Your task to perform on an android device: Search for a 100 ft extension cord Image 0: 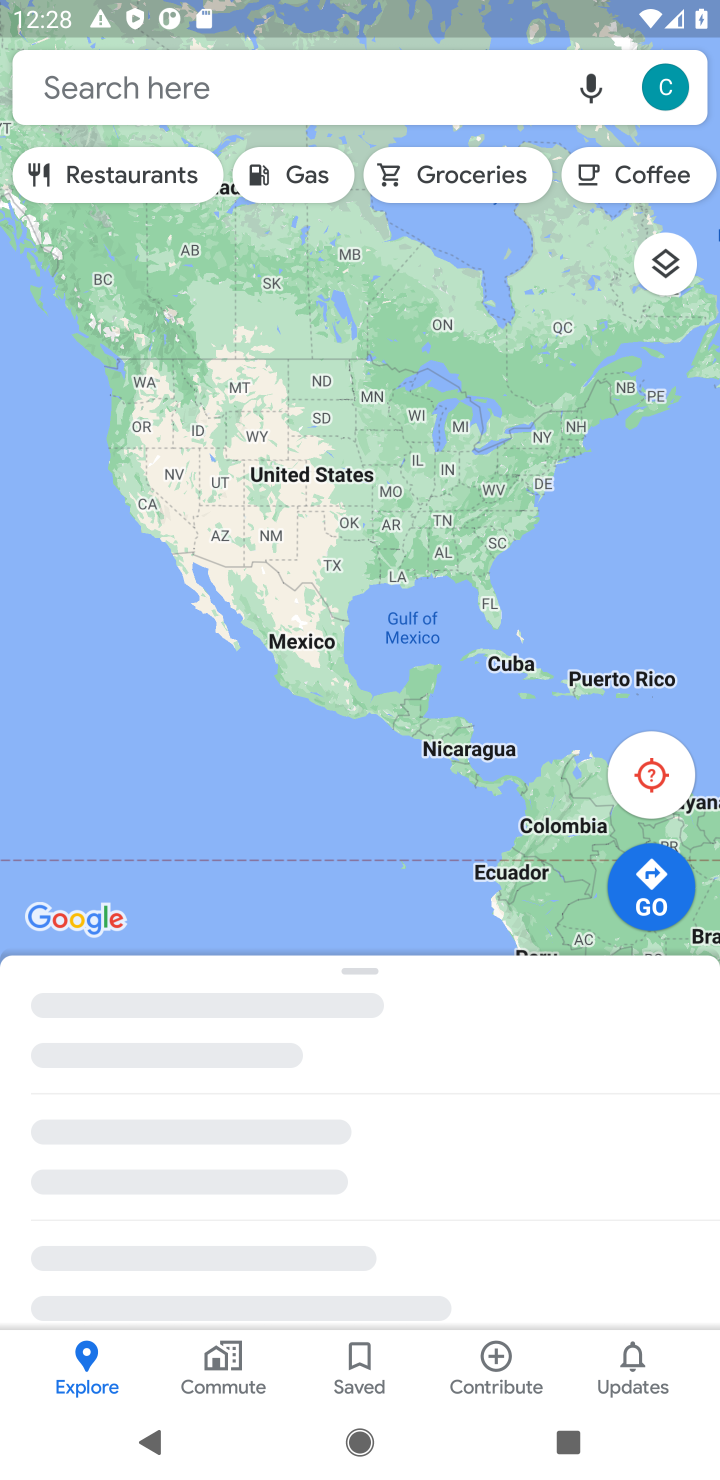
Step 0: press home button
Your task to perform on an android device: Search for a 100 ft extension cord Image 1: 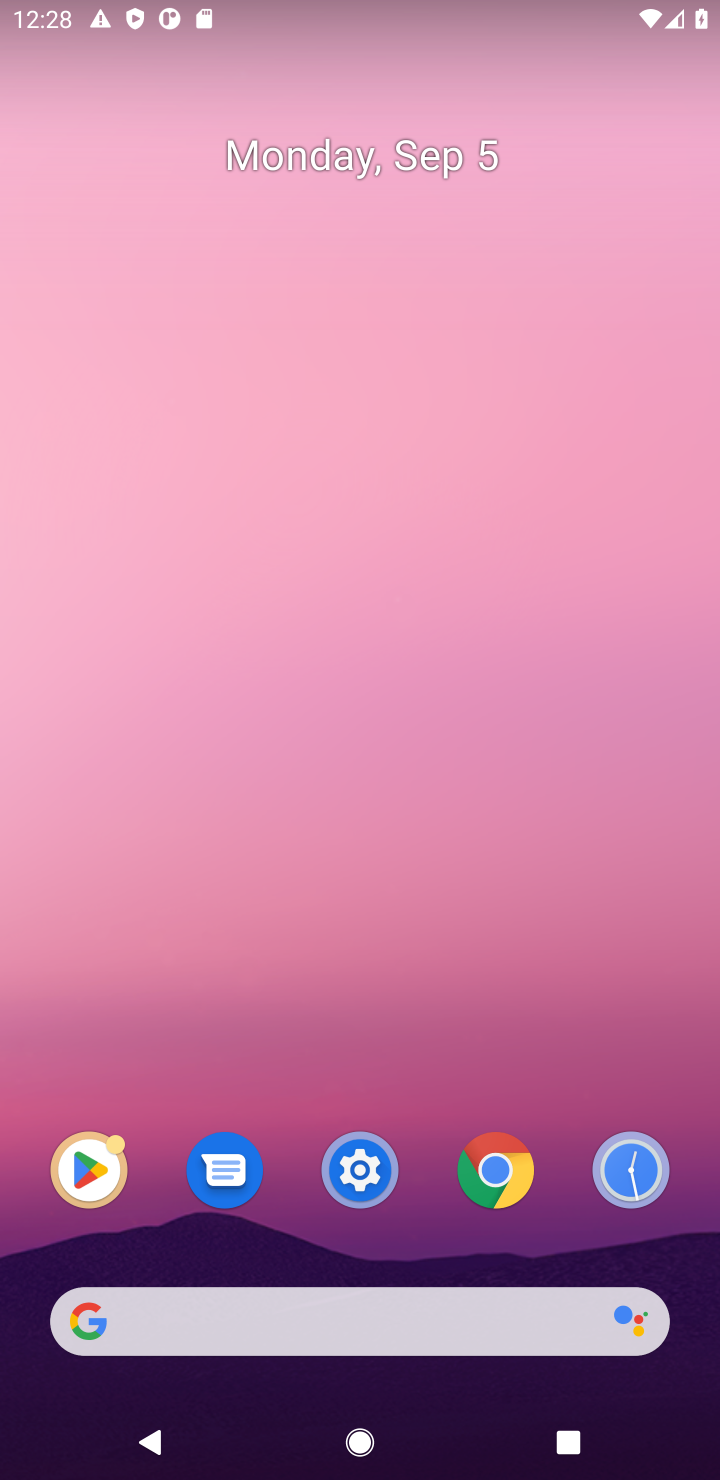
Step 1: click (352, 1331)
Your task to perform on an android device: Search for a 100 ft extension cord Image 2: 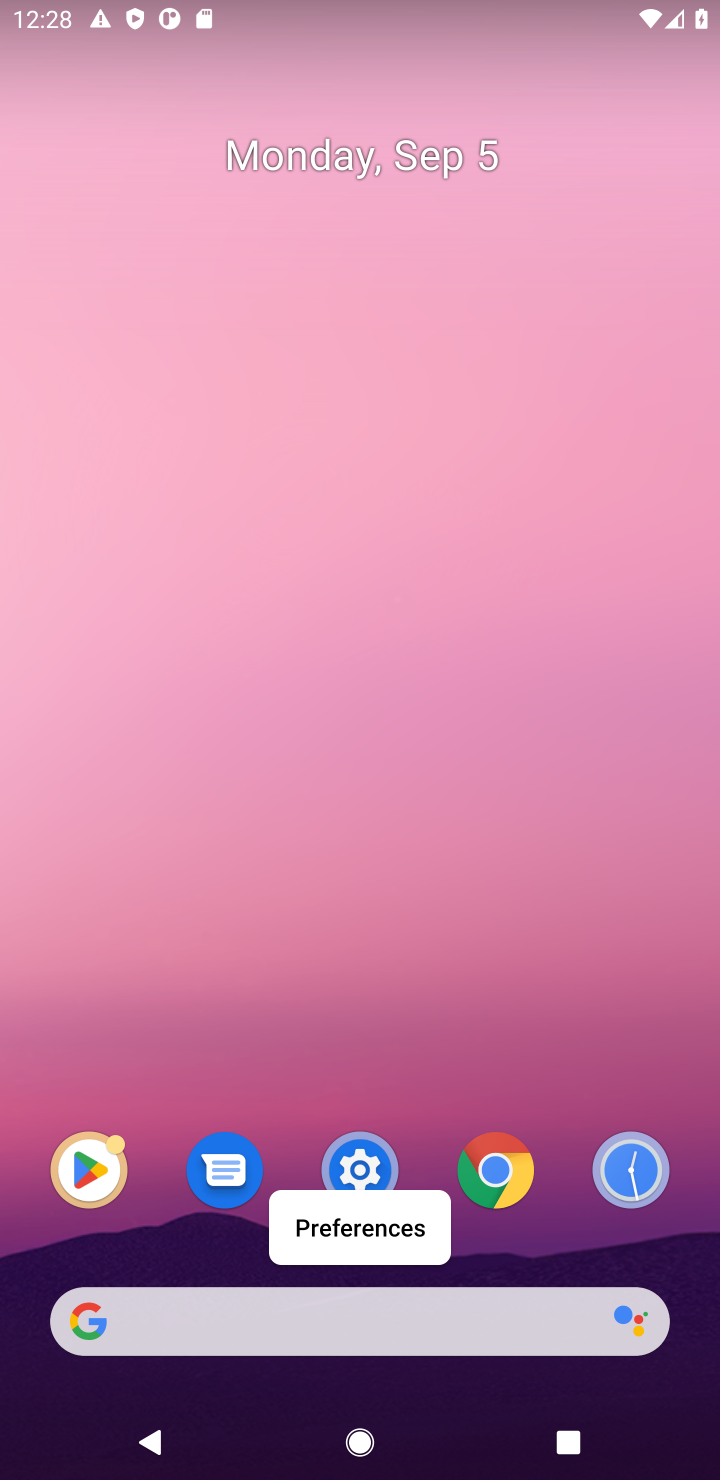
Step 2: click (352, 1331)
Your task to perform on an android device: Search for a 100 ft extension cord Image 3: 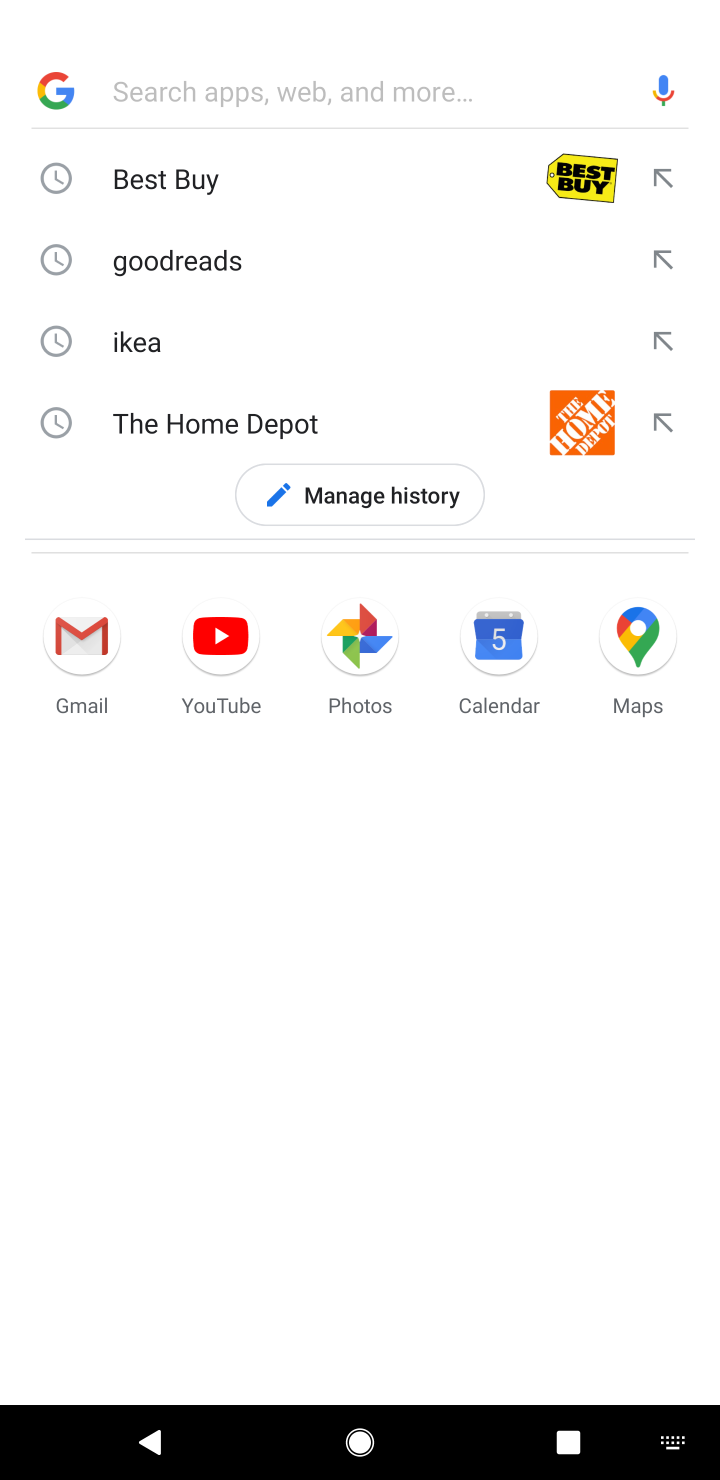
Step 3: type "100 ft extension cord"
Your task to perform on an android device: Search for a 100 ft extension cord Image 4: 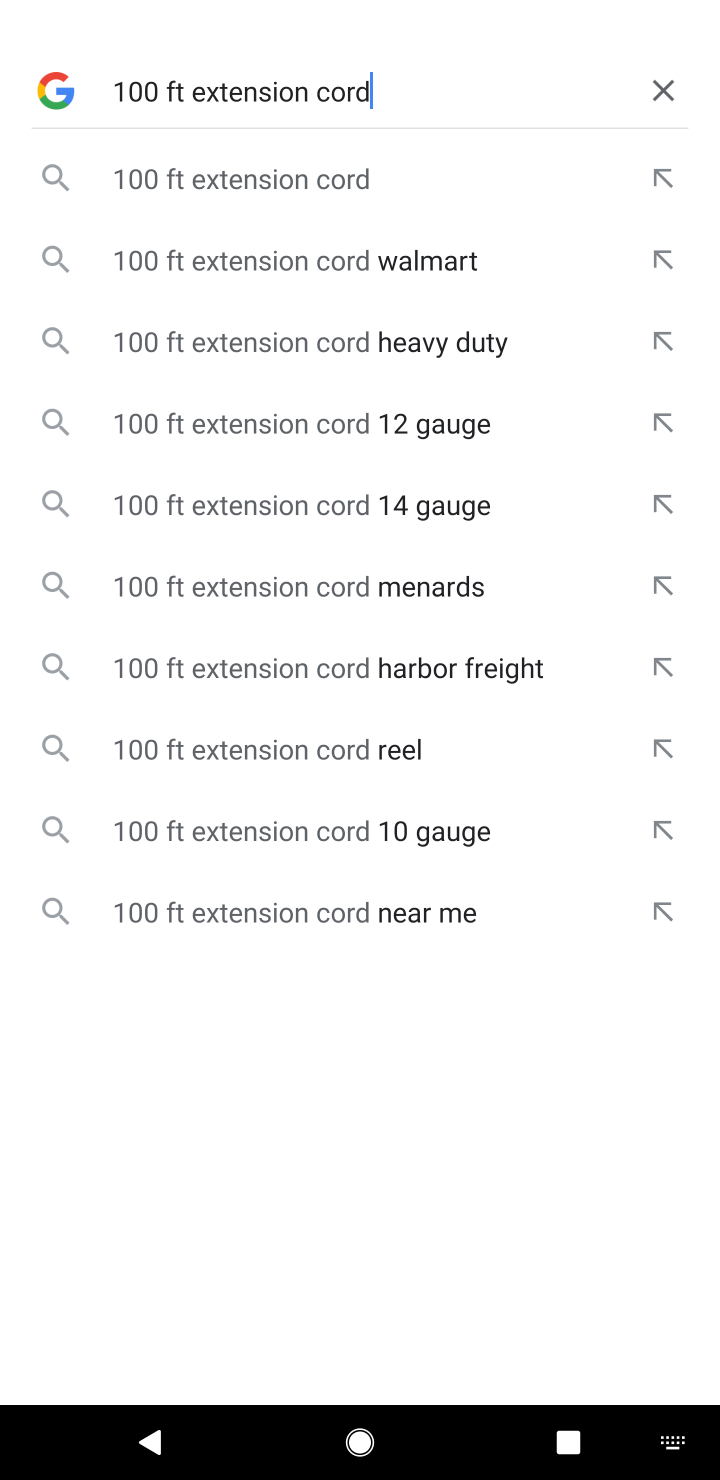
Step 4: click (305, 171)
Your task to perform on an android device: Search for a 100 ft extension cord Image 5: 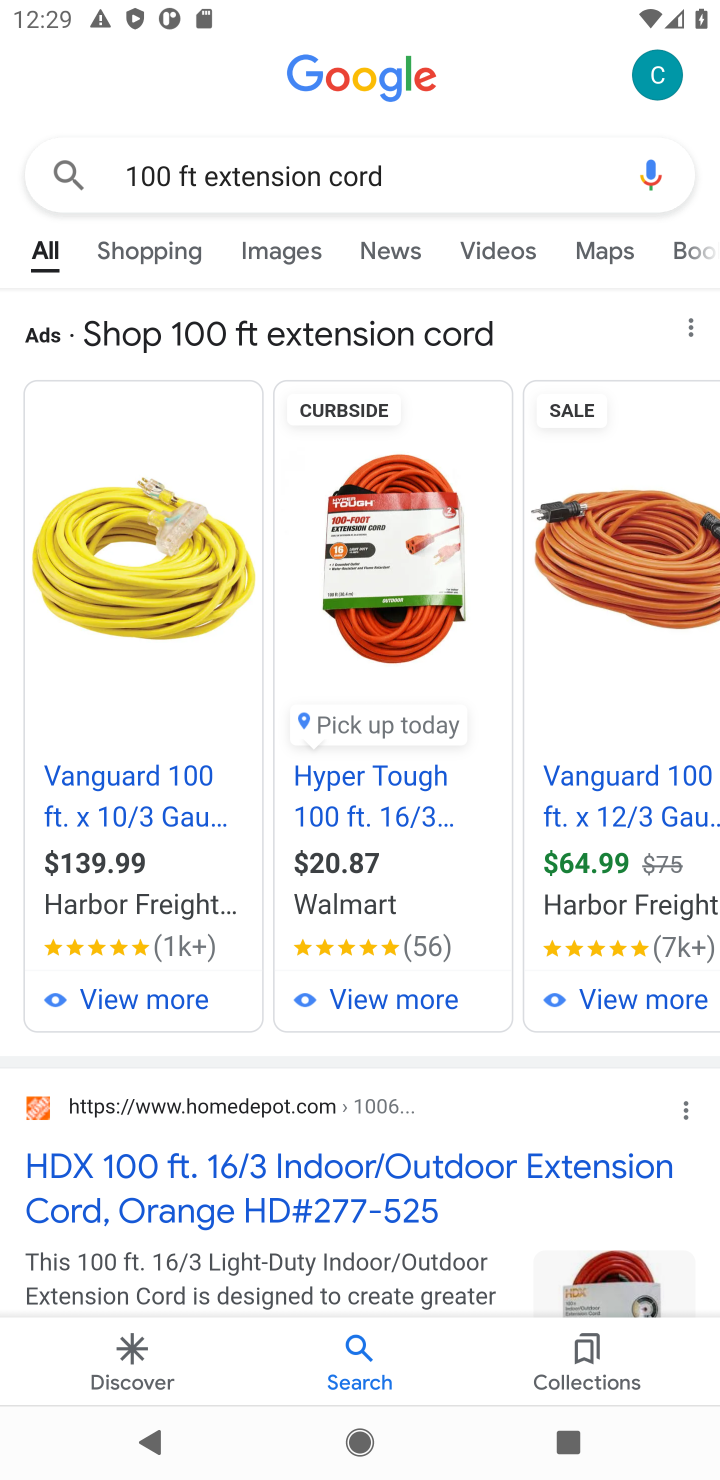
Step 5: task complete